Your task to perform on an android device: star an email in the gmail app Image 0: 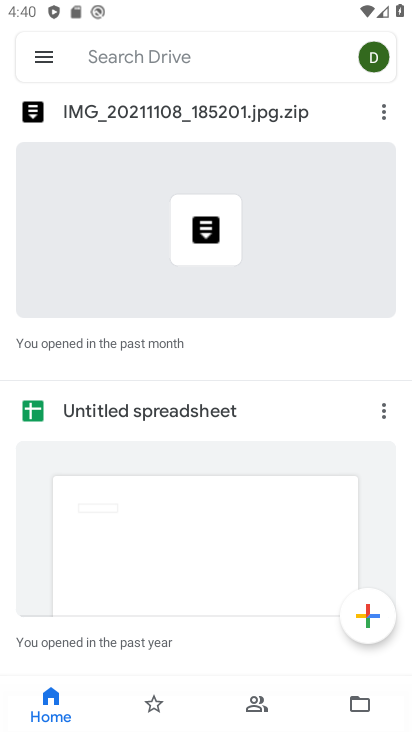
Step 0: click (49, 63)
Your task to perform on an android device: star an email in the gmail app Image 1: 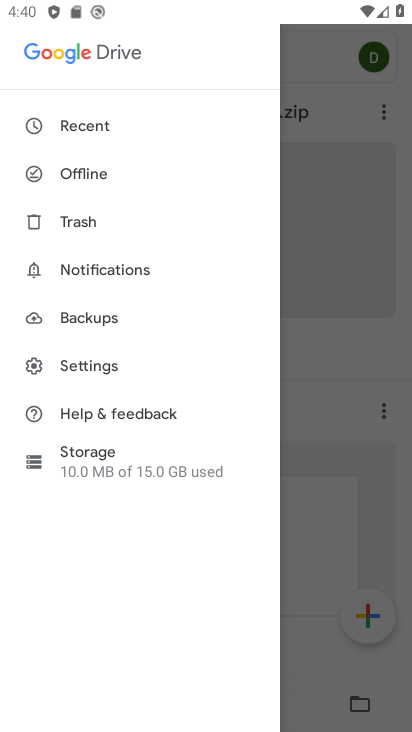
Step 1: press home button
Your task to perform on an android device: star an email in the gmail app Image 2: 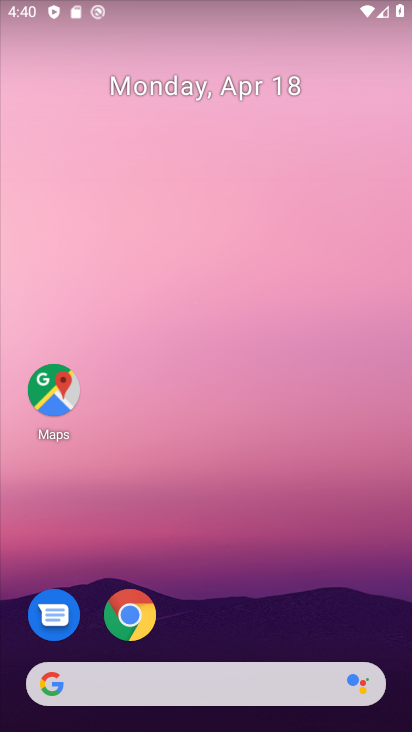
Step 2: drag from (243, 595) to (217, 45)
Your task to perform on an android device: star an email in the gmail app Image 3: 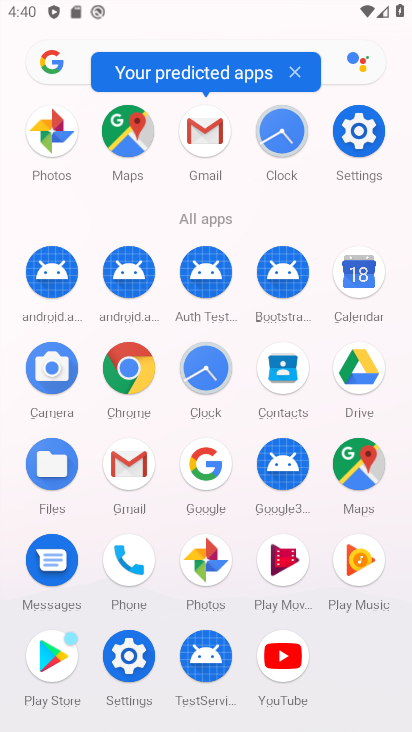
Step 3: click (131, 453)
Your task to perform on an android device: star an email in the gmail app Image 4: 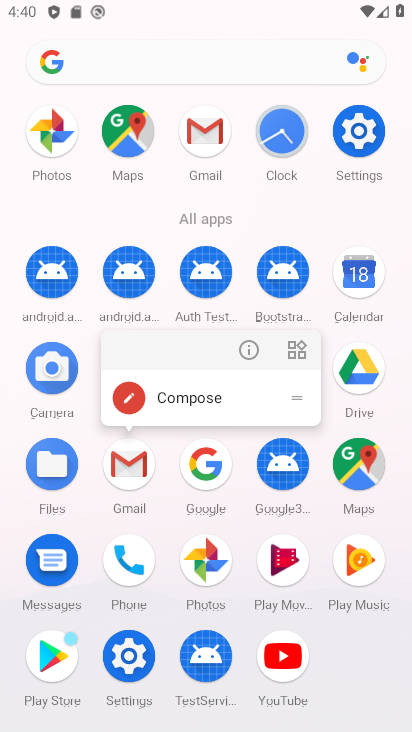
Step 4: click (130, 466)
Your task to perform on an android device: star an email in the gmail app Image 5: 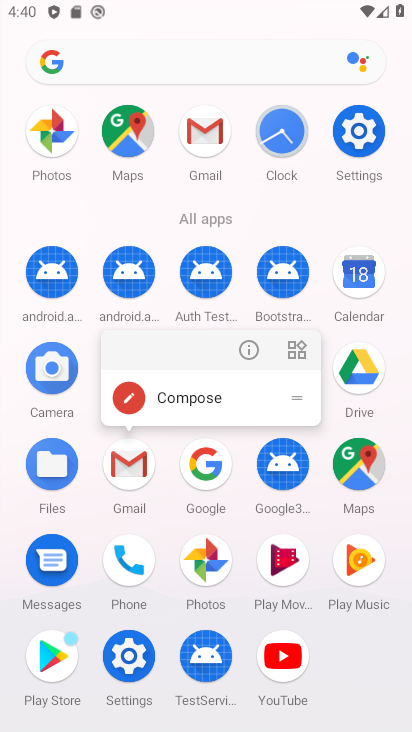
Step 5: click (124, 461)
Your task to perform on an android device: star an email in the gmail app Image 6: 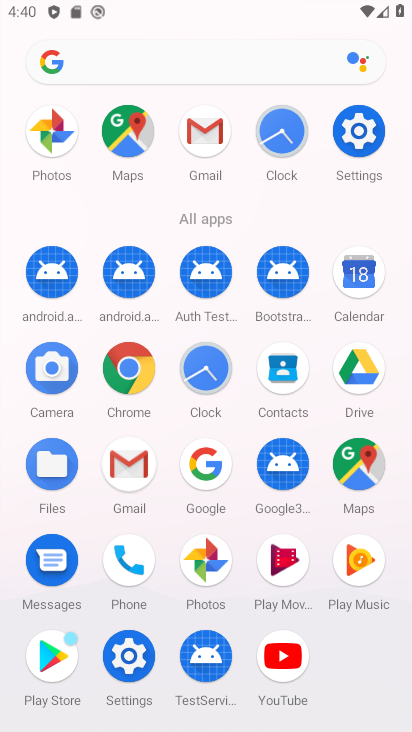
Step 6: click (124, 461)
Your task to perform on an android device: star an email in the gmail app Image 7: 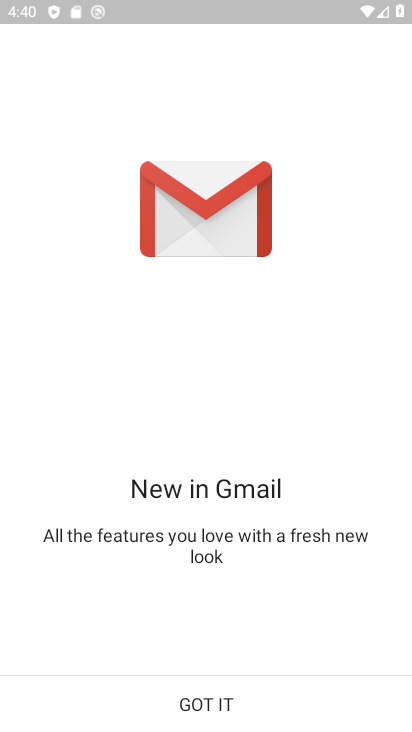
Step 7: click (210, 712)
Your task to perform on an android device: star an email in the gmail app Image 8: 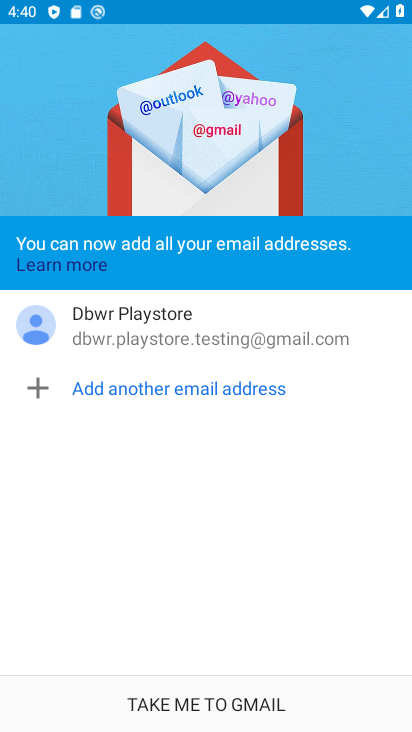
Step 8: click (218, 709)
Your task to perform on an android device: star an email in the gmail app Image 9: 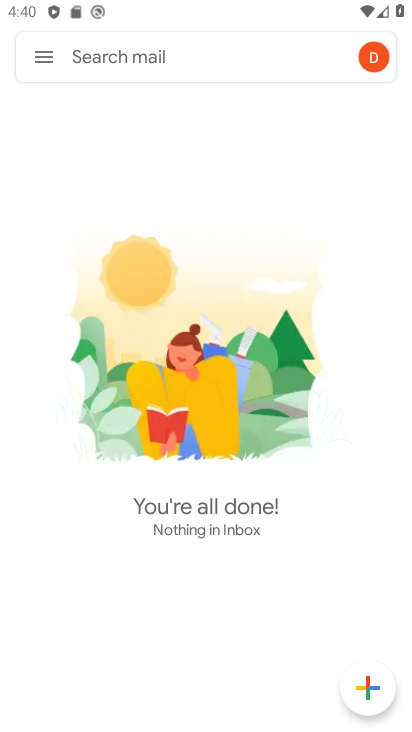
Step 9: click (52, 58)
Your task to perform on an android device: star an email in the gmail app Image 10: 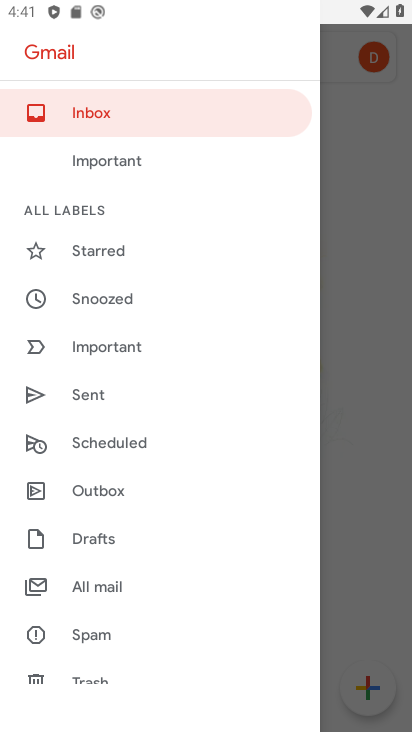
Step 10: click (181, 106)
Your task to perform on an android device: star an email in the gmail app Image 11: 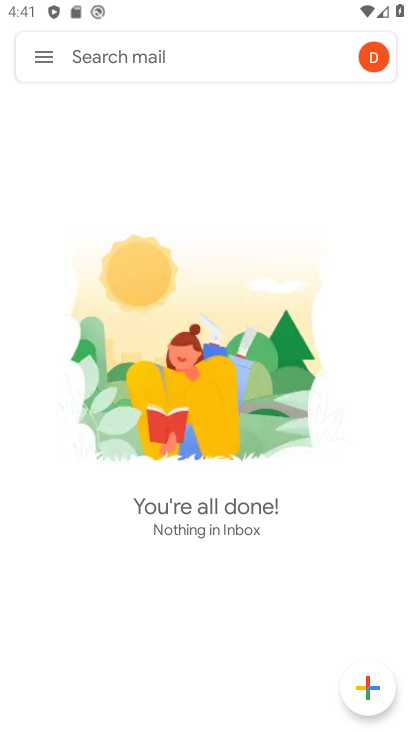
Step 11: task complete